Your task to perform on an android device: Go to Amazon Image 0: 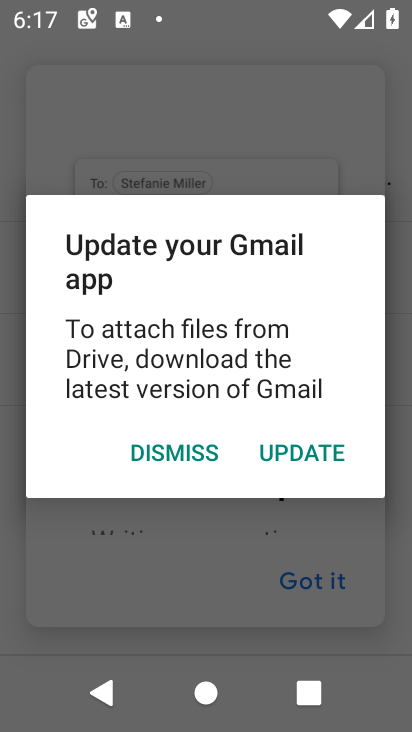
Step 0: press home button
Your task to perform on an android device: Go to Amazon Image 1: 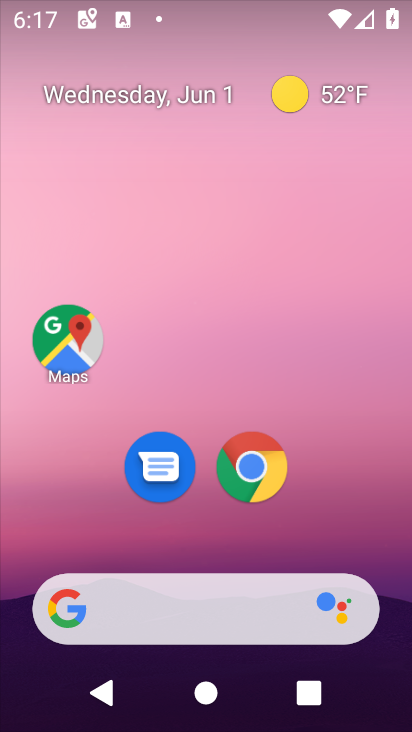
Step 1: click (273, 476)
Your task to perform on an android device: Go to Amazon Image 2: 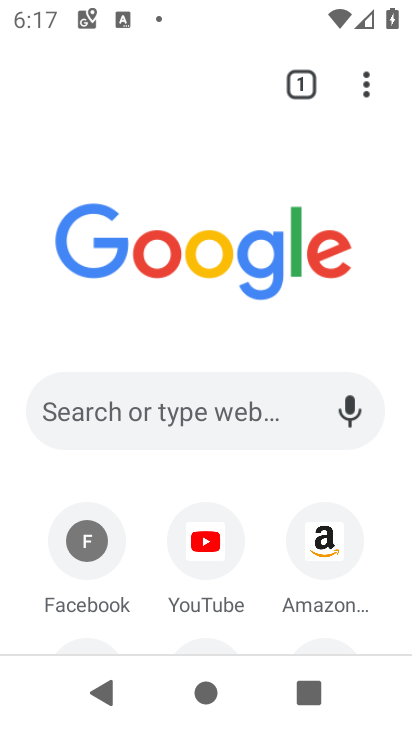
Step 2: click (321, 543)
Your task to perform on an android device: Go to Amazon Image 3: 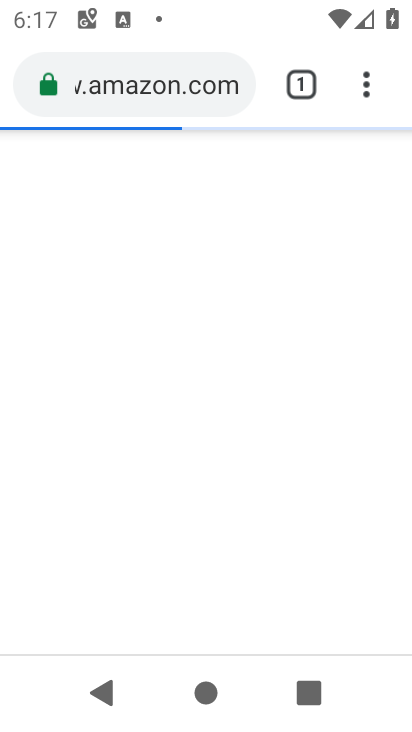
Step 3: task complete